Your task to perform on an android device: turn on showing notifications on the lock screen Image 0: 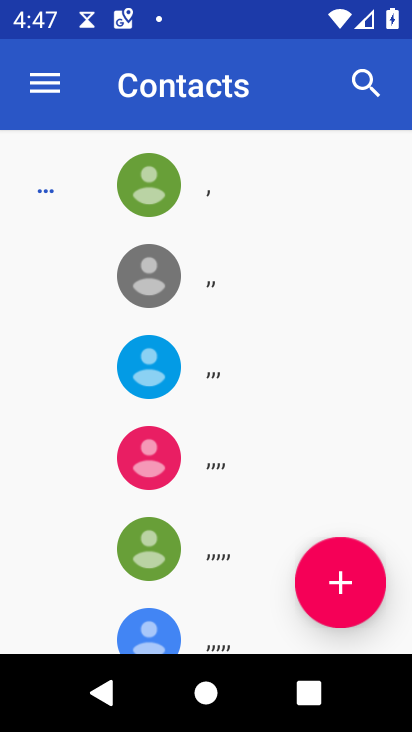
Step 0: press home button
Your task to perform on an android device: turn on showing notifications on the lock screen Image 1: 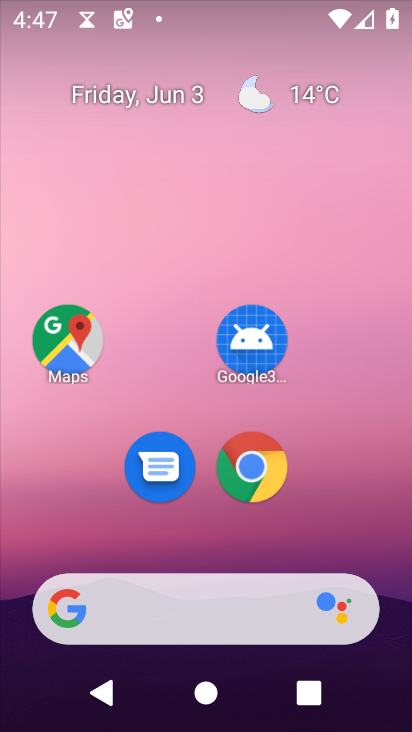
Step 1: drag from (321, 487) to (338, 157)
Your task to perform on an android device: turn on showing notifications on the lock screen Image 2: 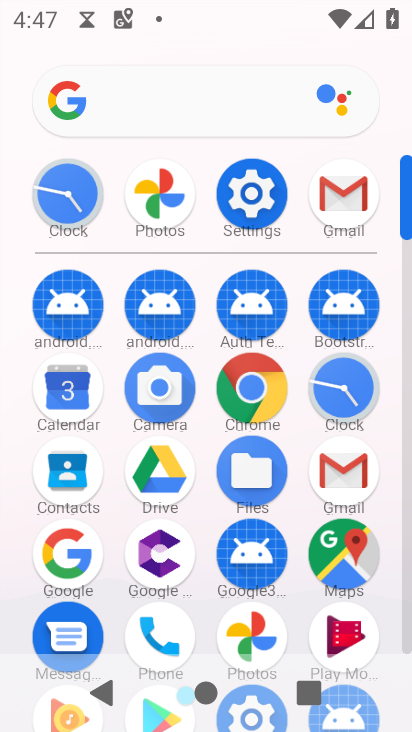
Step 2: click (261, 195)
Your task to perform on an android device: turn on showing notifications on the lock screen Image 3: 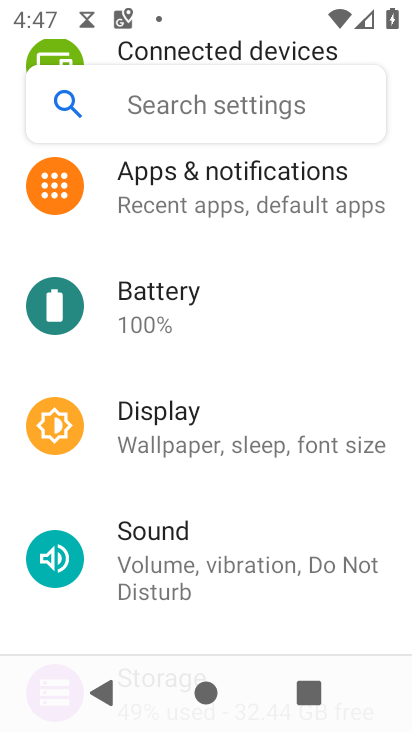
Step 3: click (269, 211)
Your task to perform on an android device: turn on showing notifications on the lock screen Image 4: 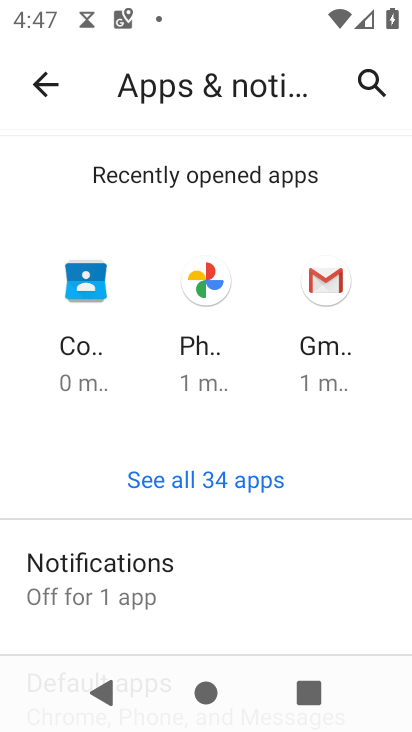
Step 4: drag from (244, 512) to (274, 135)
Your task to perform on an android device: turn on showing notifications on the lock screen Image 5: 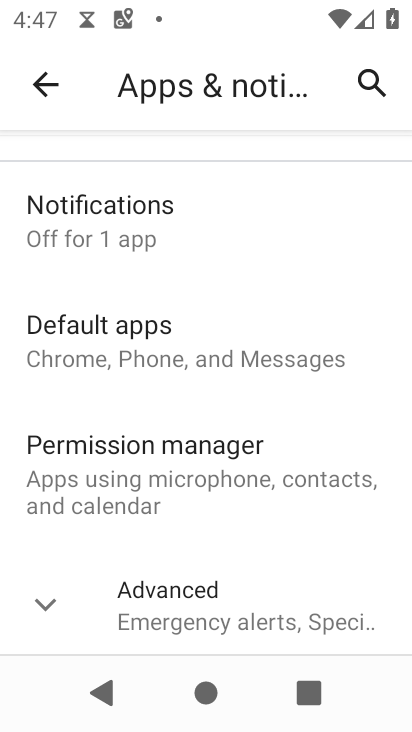
Step 5: click (230, 225)
Your task to perform on an android device: turn on showing notifications on the lock screen Image 6: 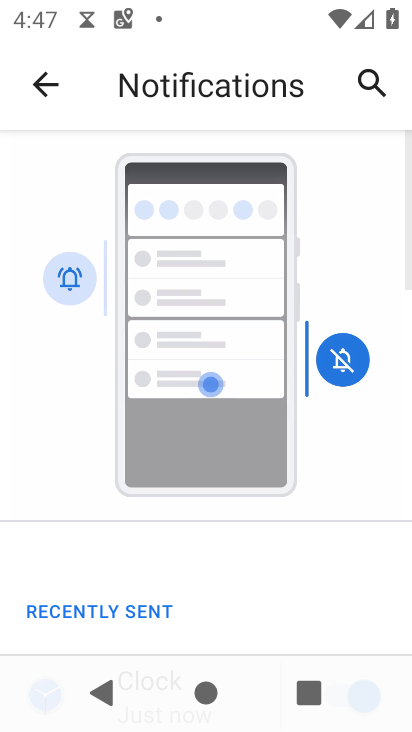
Step 6: drag from (283, 557) to (337, 104)
Your task to perform on an android device: turn on showing notifications on the lock screen Image 7: 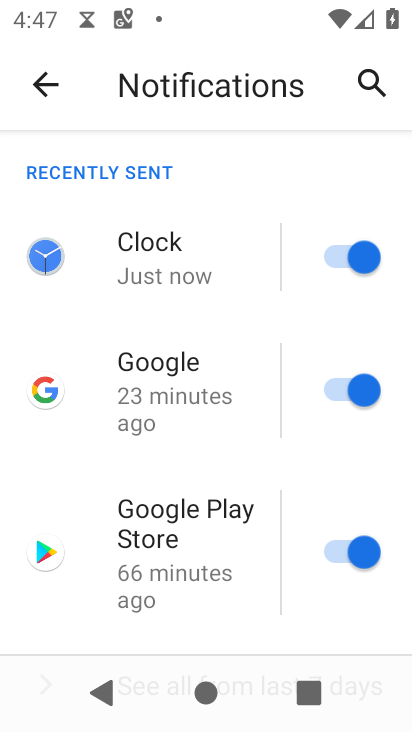
Step 7: drag from (231, 513) to (297, 98)
Your task to perform on an android device: turn on showing notifications on the lock screen Image 8: 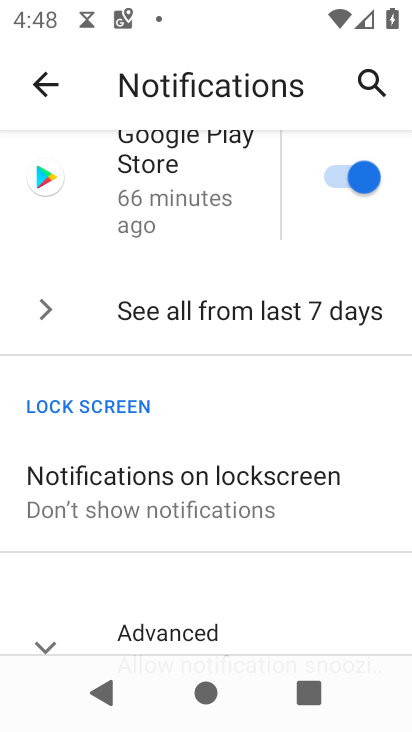
Step 8: click (248, 501)
Your task to perform on an android device: turn on showing notifications on the lock screen Image 9: 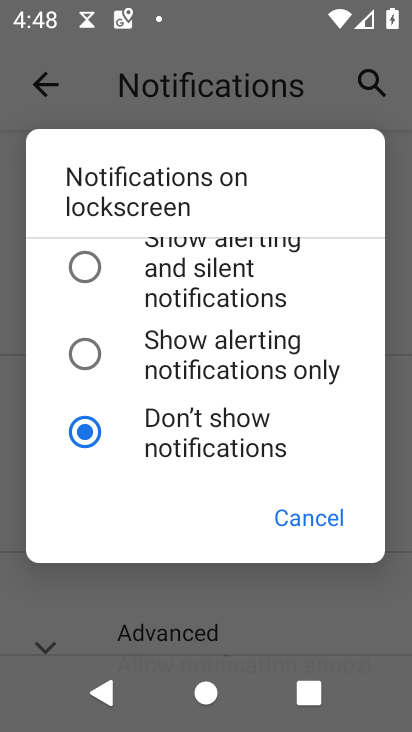
Step 9: drag from (230, 302) to (216, 482)
Your task to perform on an android device: turn on showing notifications on the lock screen Image 10: 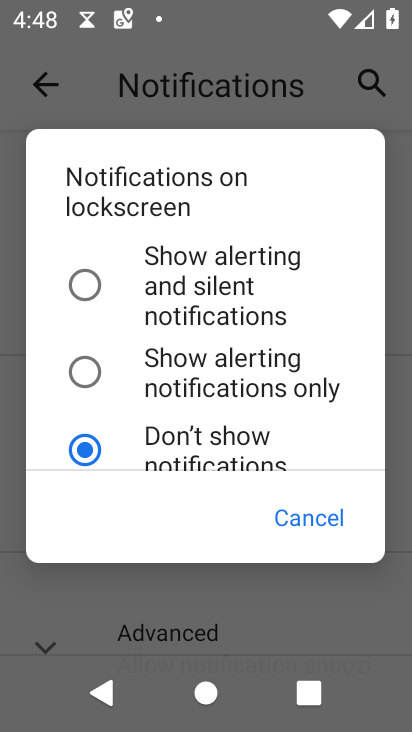
Step 10: click (151, 273)
Your task to perform on an android device: turn on showing notifications on the lock screen Image 11: 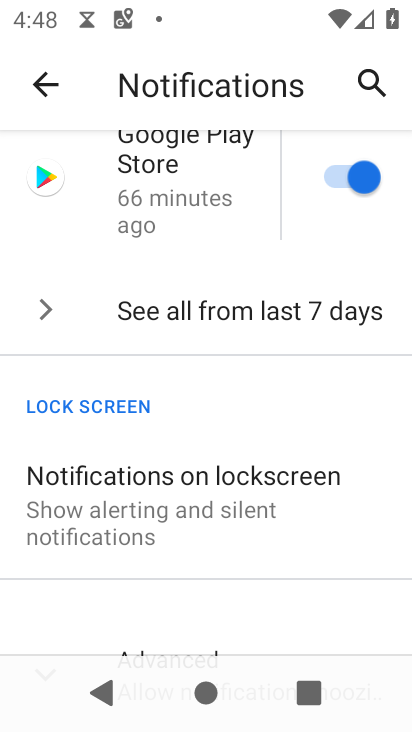
Step 11: task complete